Your task to perform on an android device: empty trash in google photos Image 0: 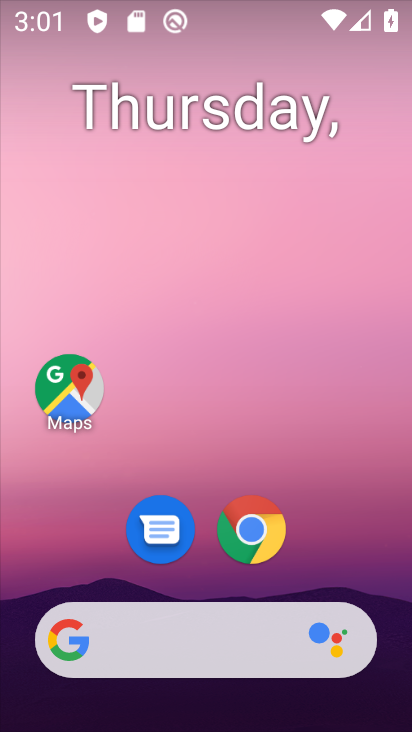
Step 0: drag from (348, 451) to (253, 73)
Your task to perform on an android device: empty trash in google photos Image 1: 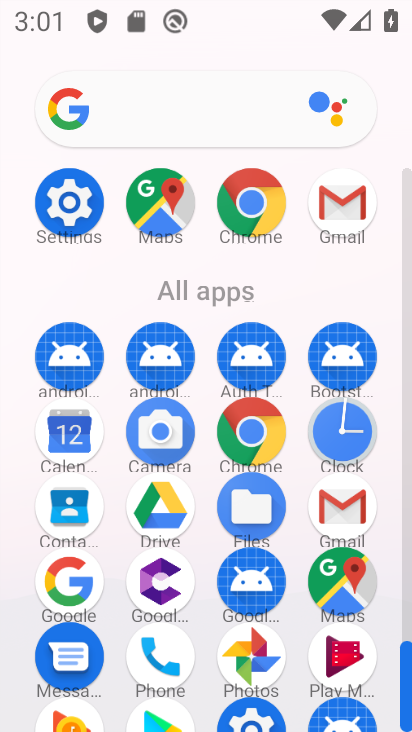
Step 1: drag from (292, 595) to (306, 241)
Your task to perform on an android device: empty trash in google photos Image 2: 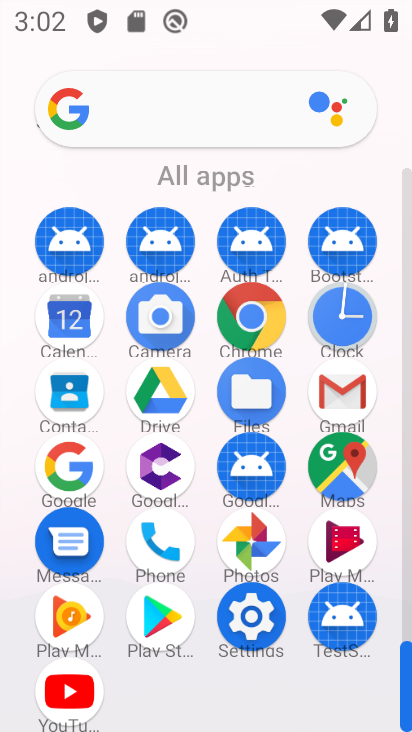
Step 2: click (254, 541)
Your task to perform on an android device: empty trash in google photos Image 3: 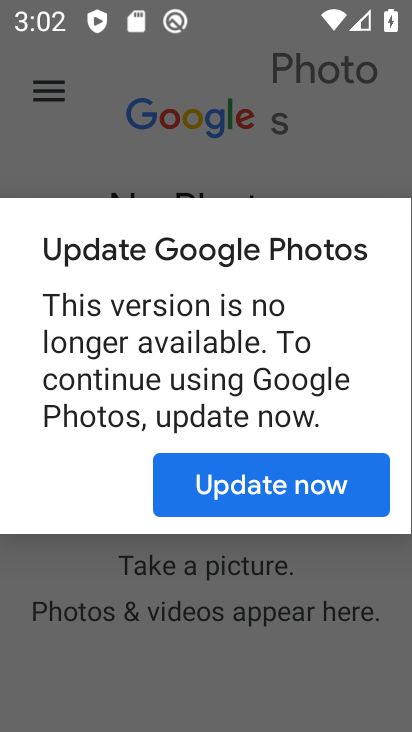
Step 3: click (263, 477)
Your task to perform on an android device: empty trash in google photos Image 4: 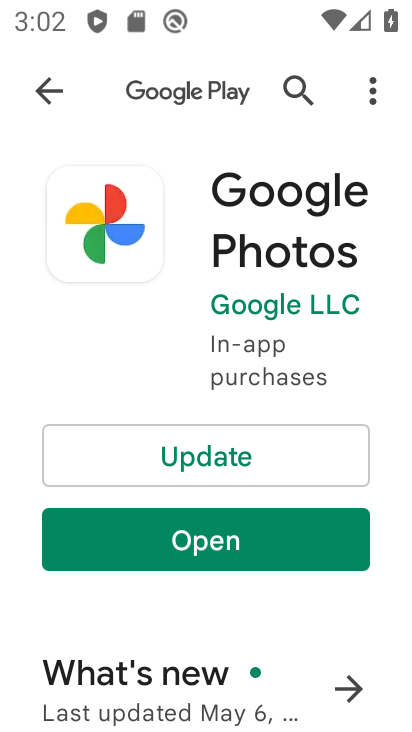
Step 4: click (233, 467)
Your task to perform on an android device: empty trash in google photos Image 5: 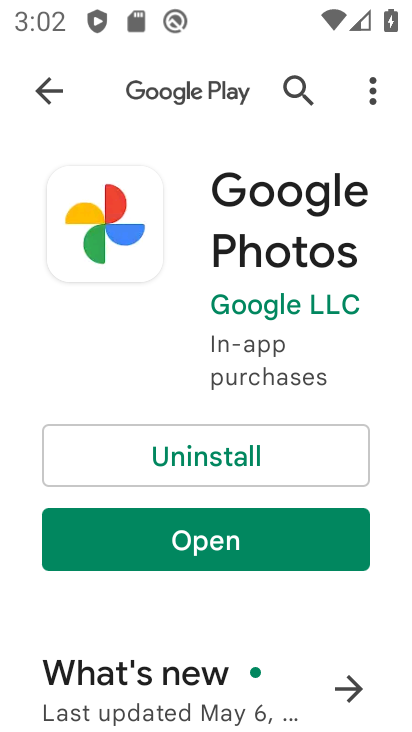
Step 5: click (232, 534)
Your task to perform on an android device: empty trash in google photos Image 6: 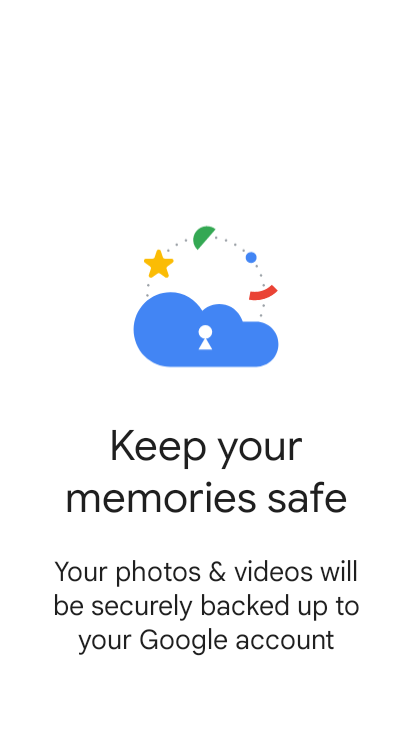
Step 6: click (286, 693)
Your task to perform on an android device: empty trash in google photos Image 7: 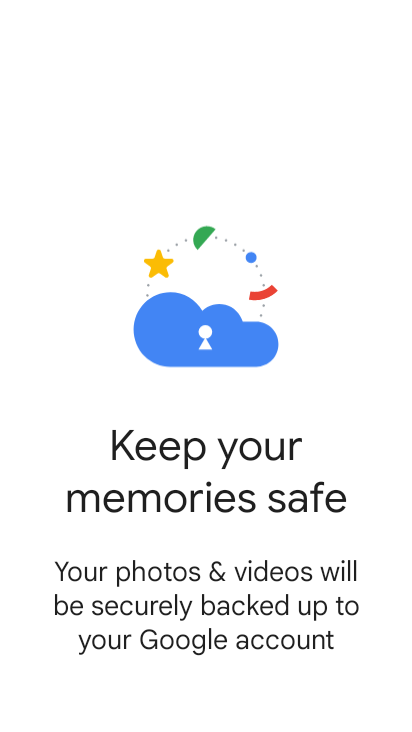
Step 7: drag from (321, 444) to (5, 429)
Your task to perform on an android device: empty trash in google photos Image 8: 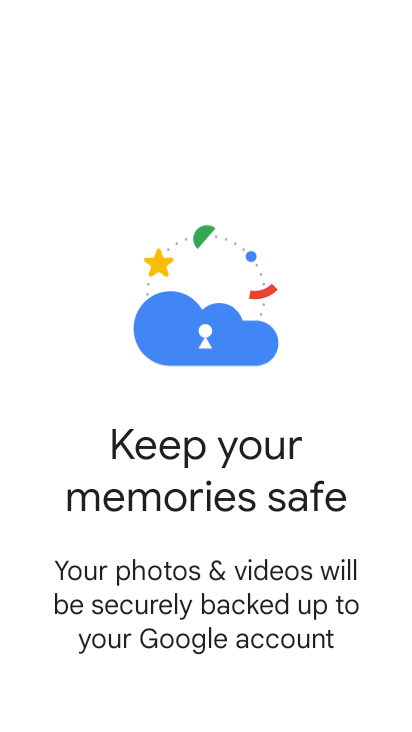
Step 8: drag from (166, 622) to (226, 192)
Your task to perform on an android device: empty trash in google photos Image 9: 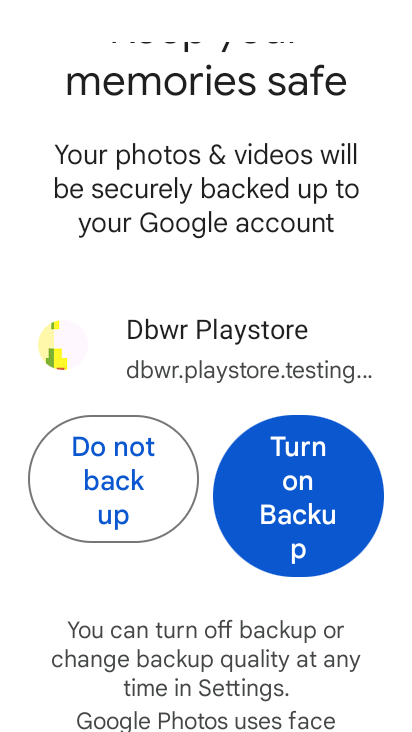
Step 9: click (271, 516)
Your task to perform on an android device: empty trash in google photos Image 10: 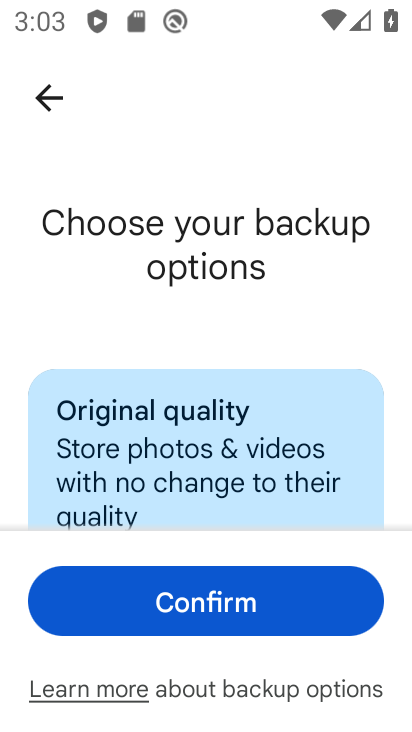
Step 10: click (230, 602)
Your task to perform on an android device: empty trash in google photos Image 11: 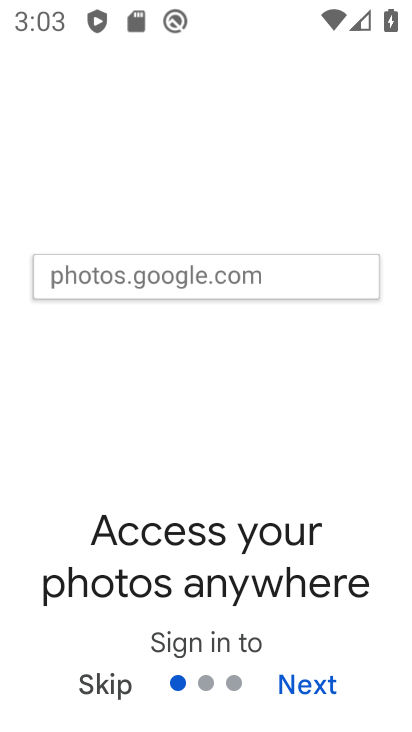
Step 11: click (296, 684)
Your task to perform on an android device: empty trash in google photos Image 12: 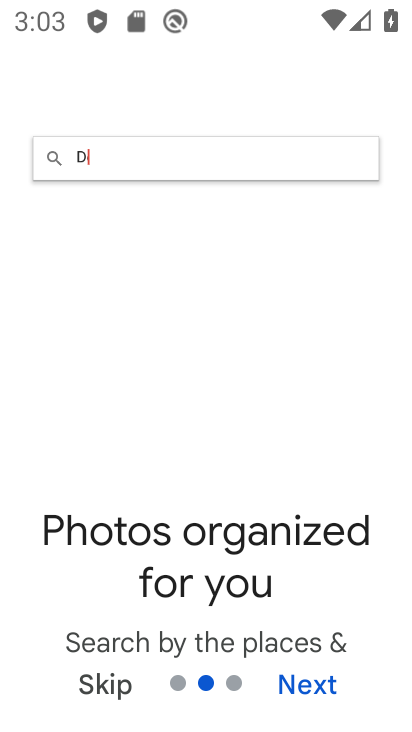
Step 12: click (296, 684)
Your task to perform on an android device: empty trash in google photos Image 13: 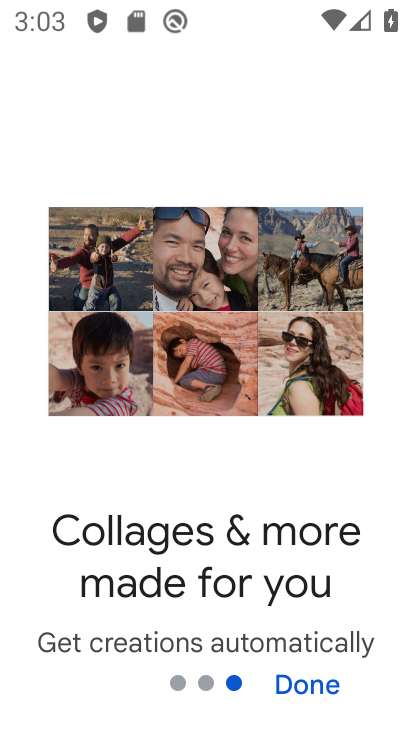
Step 13: click (296, 684)
Your task to perform on an android device: empty trash in google photos Image 14: 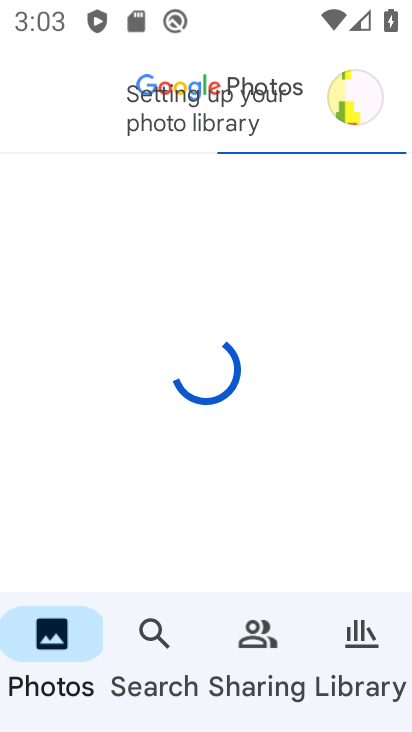
Step 14: click (358, 636)
Your task to perform on an android device: empty trash in google photos Image 15: 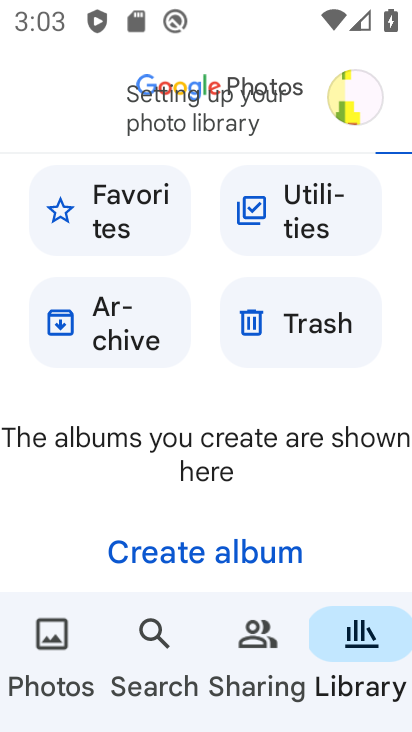
Step 15: click (324, 330)
Your task to perform on an android device: empty trash in google photos Image 16: 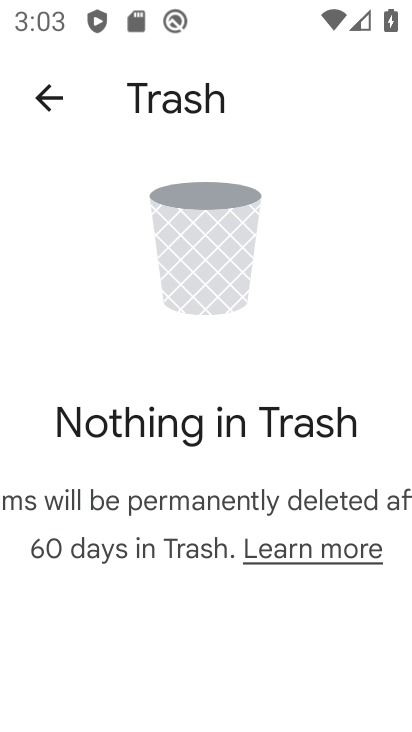
Step 16: task complete